Your task to perform on an android device: check android version Image 0: 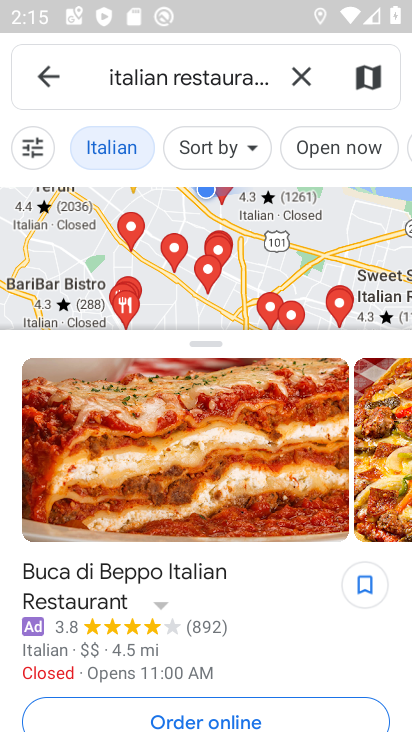
Step 0: press home button
Your task to perform on an android device: check android version Image 1: 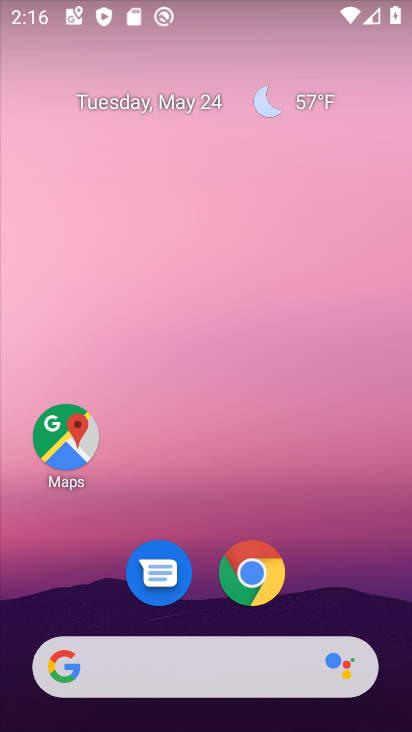
Step 1: drag from (339, 605) to (325, 239)
Your task to perform on an android device: check android version Image 2: 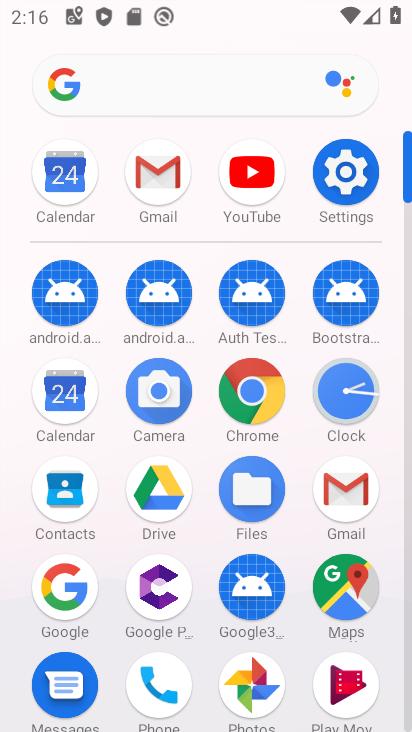
Step 2: click (356, 161)
Your task to perform on an android device: check android version Image 3: 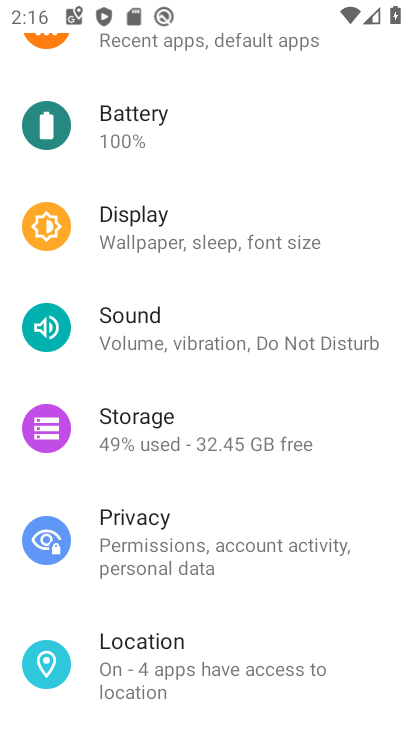
Step 3: drag from (322, 563) to (275, 99)
Your task to perform on an android device: check android version Image 4: 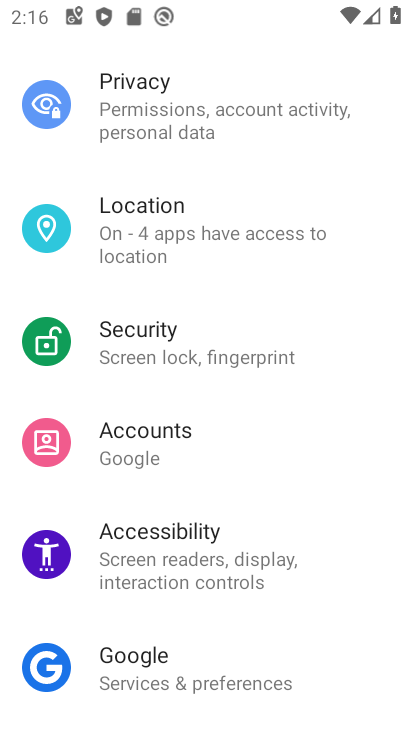
Step 4: drag from (201, 654) to (212, 371)
Your task to perform on an android device: check android version Image 5: 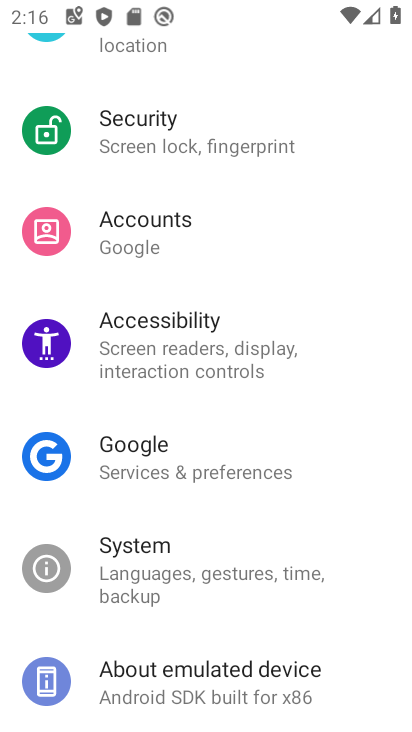
Step 5: click (168, 684)
Your task to perform on an android device: check android version Image 6: 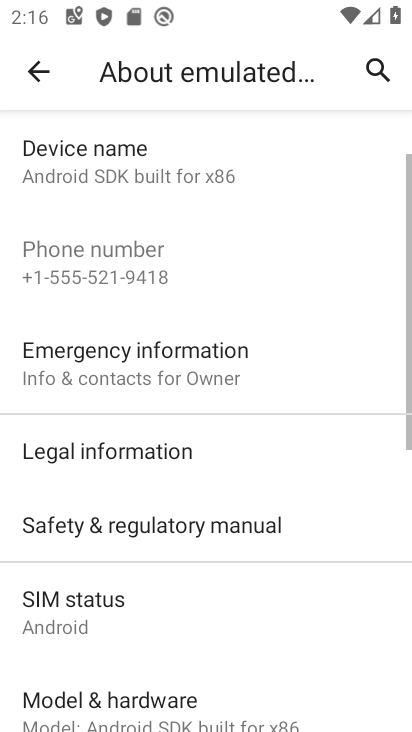
Step 6: drag from (220, 645) to (229, 353)
Your task to perform on an android device: check android version Image 7: 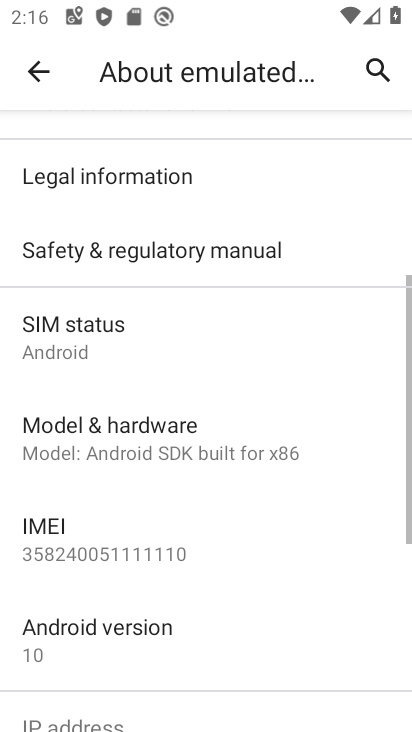
Step 7: click (60, 657)
Your task to perform on an android device: check android version Image 8: 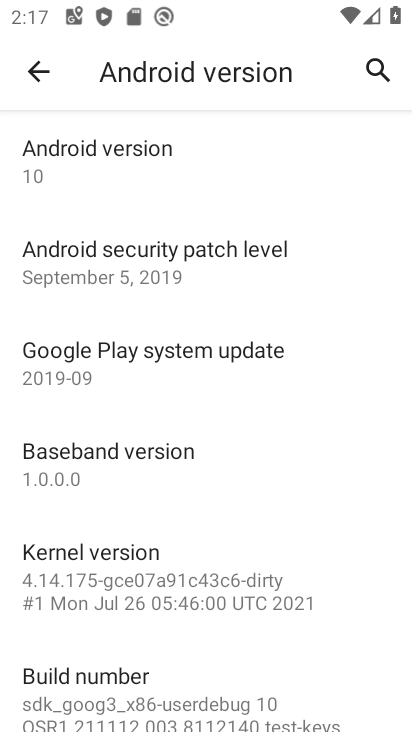
Step 8: task complete